Your task to perform on an android device: Open Amazon Image 0: 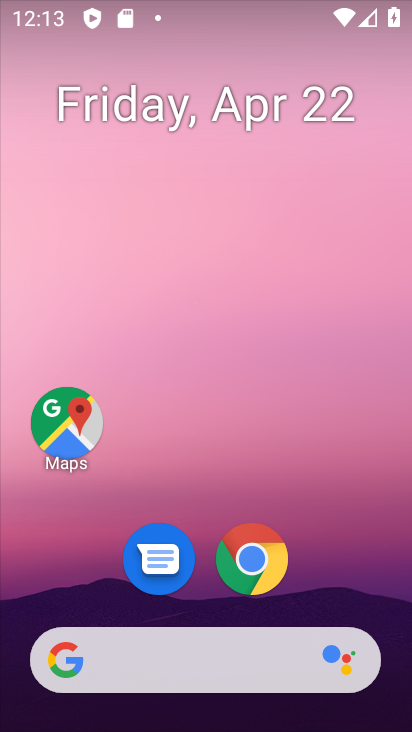
Step 0: drag from (357, 554) to (355, 128)
Your task to perform on an android device: Open Amazon Image 1: 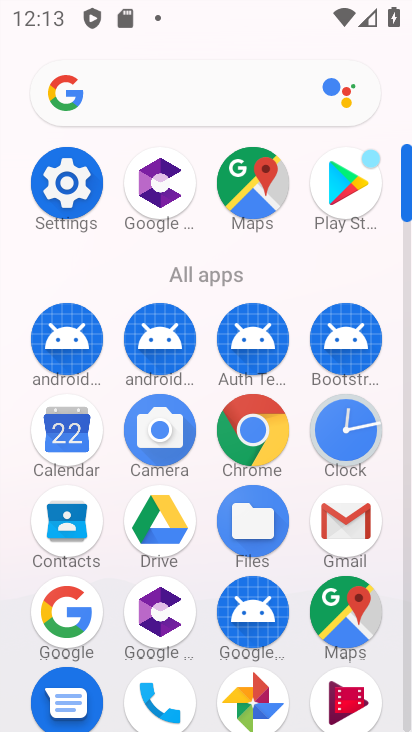
Step 1: click (269, 437)
Your task to perform on an android device: Open Amazon Image 2: 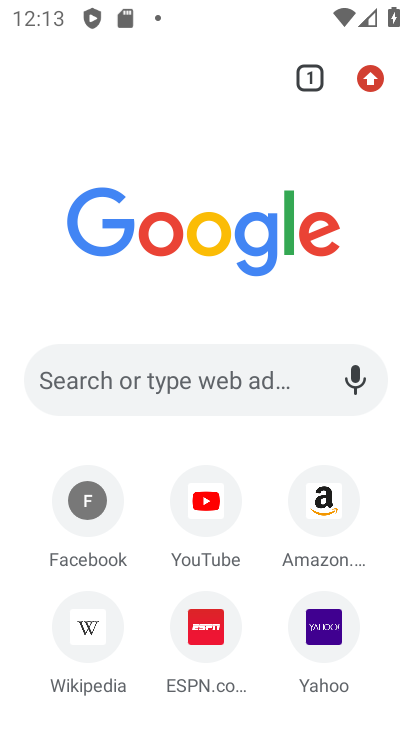
Step 2: click (322, 518)
Your task to perform on an android device: Open Amazon Image 3: 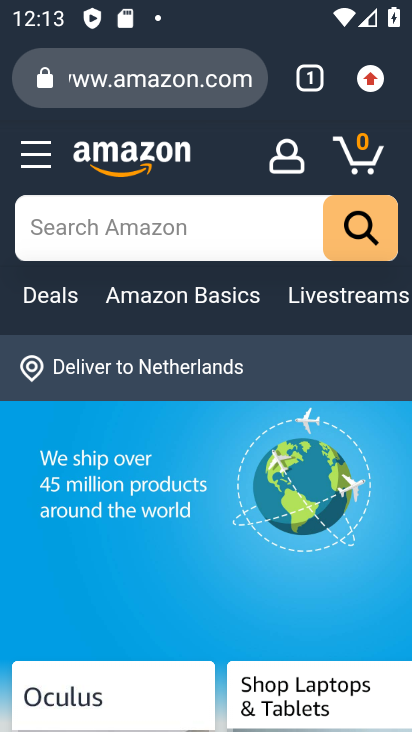
Step 3: task complete